Your task to perform on an android device: toggle show notifications on the lock screen Image 0: 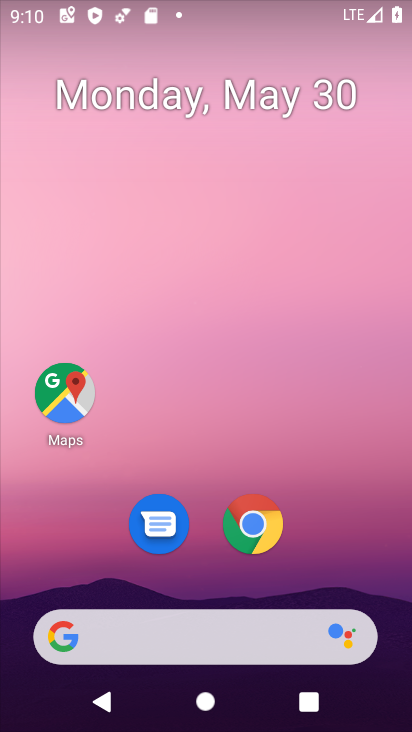
Step 0: drag from (322, 540) to (338, 64)
Your task to perform on an android device: toggle show notifications on the lock screen Image 1: 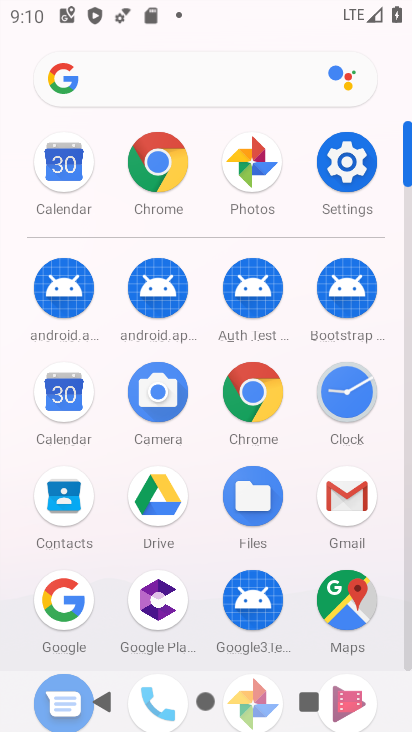
Step 1: click (354, 161)
Your task to perform on an android device: toggle show notifications on the lock screen Image 2: 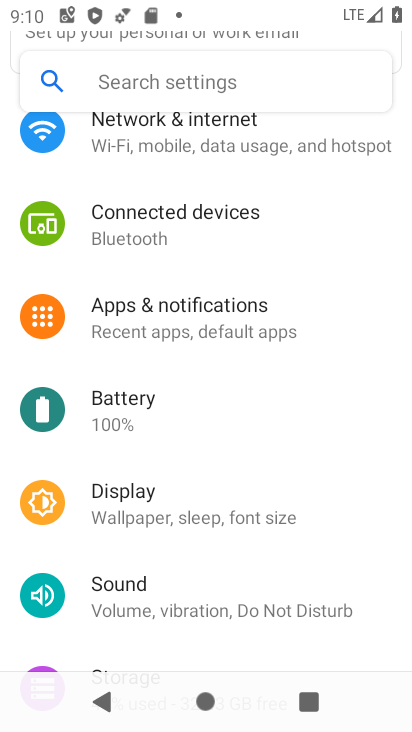
Step 2: click (226, 316)
Your task to perform on an android device: toggle show notifications on the lock screen Image 3: 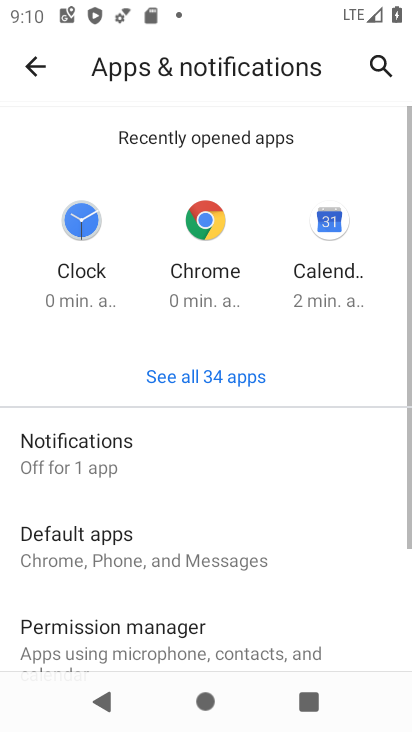
Step 3: click (249, 445)
Your task to perform on an android device: toggle show notifications on the lock screen Image 4: 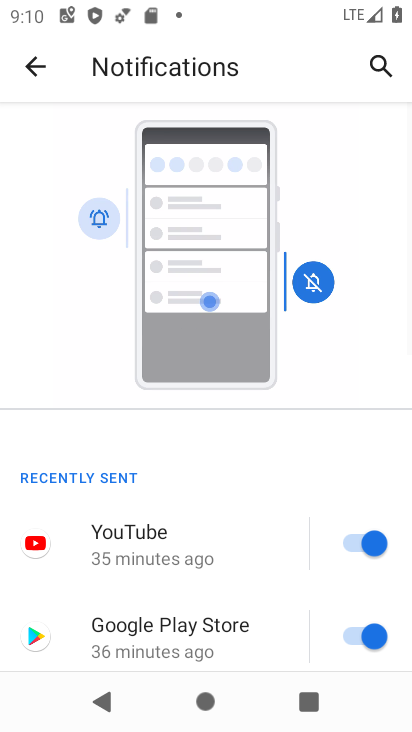
Step 4: drag from (215, 523) to (207, 129)
Your task to perform on an android device: toggle show notifications on the lock screen Image 5: 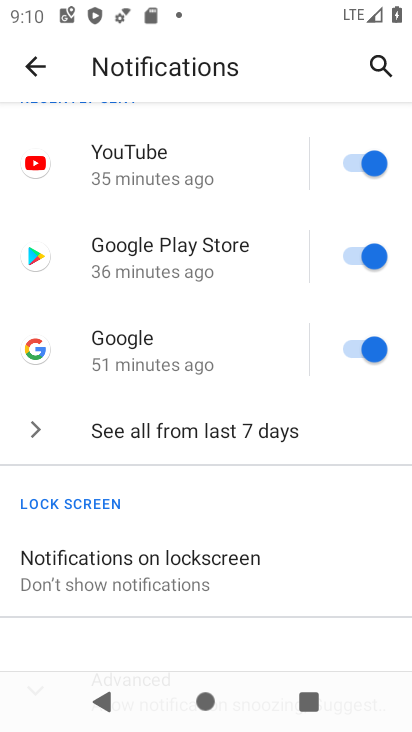
Step 5: click (229, 564)
Your task to perform on an android device: toggle show notifications on the lock screen Image 6: 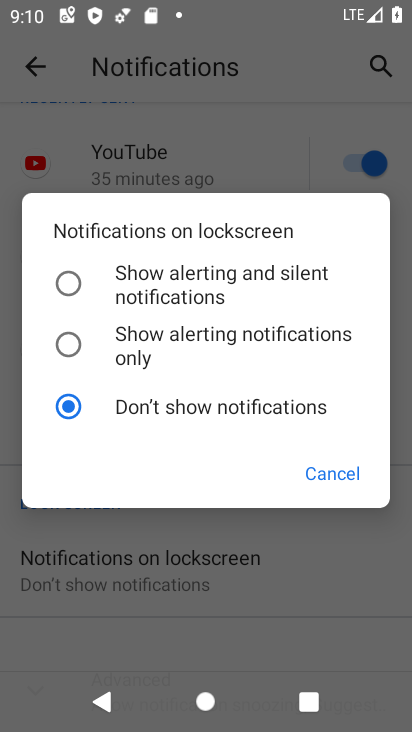
Step 6: click (65, 278)
Your task to perform on an android device: toggle show notifications on the lock screen Image 7: 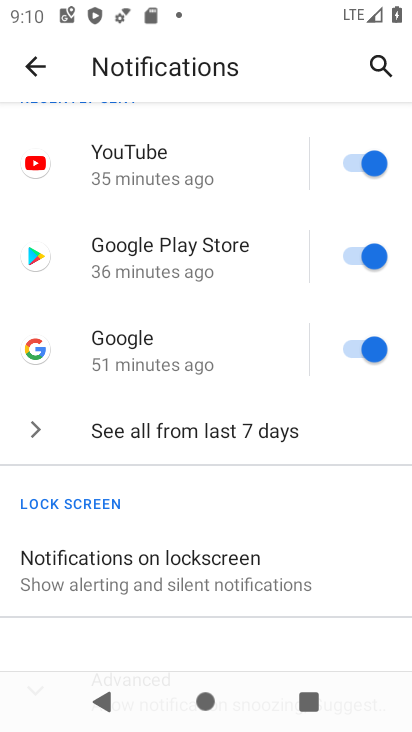
Step 7: task complete